Your task to perform on an android device: When is my next appointment? Image 0: 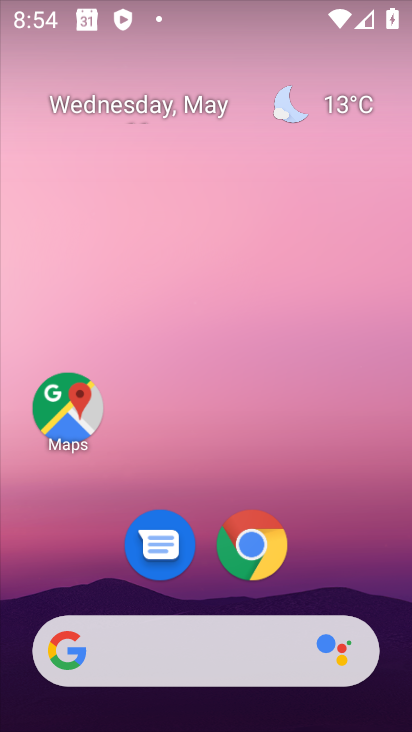
Step 0: drag from (313, 541) to (246, 46)
Your task to perform on an android device: When is my next appointment? Image 1: 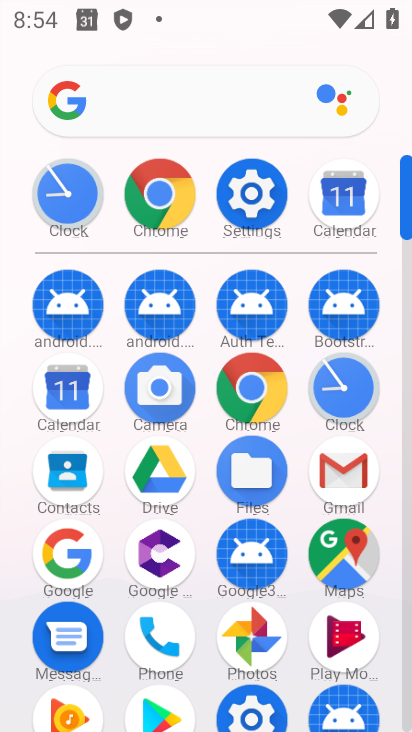
Step 1: drag from (9, 556) to (25, 208)
Your task to perform on an android device: When is my next appointment? Image 2: 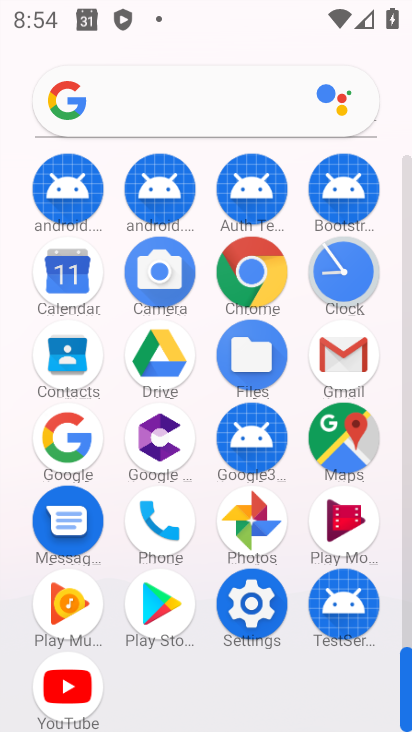
Step 2: drag from (15, 528) to (14, 331)
Your task to perform on an android device: When is my next appointment? Image 3: 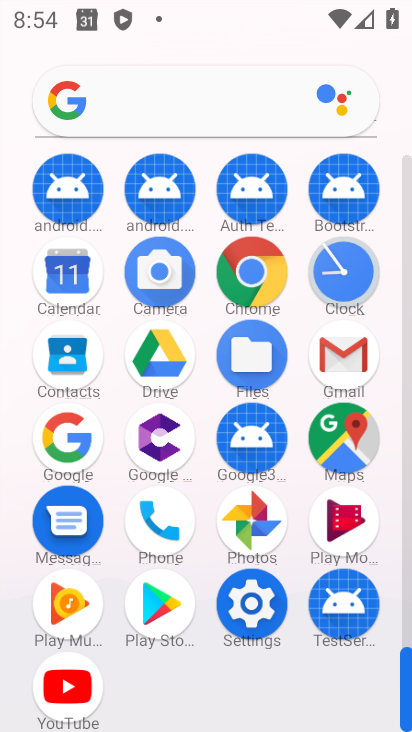
Step 3: click (68, 272)
Your task to perform on an android device: When is my next appointment? Image 4: 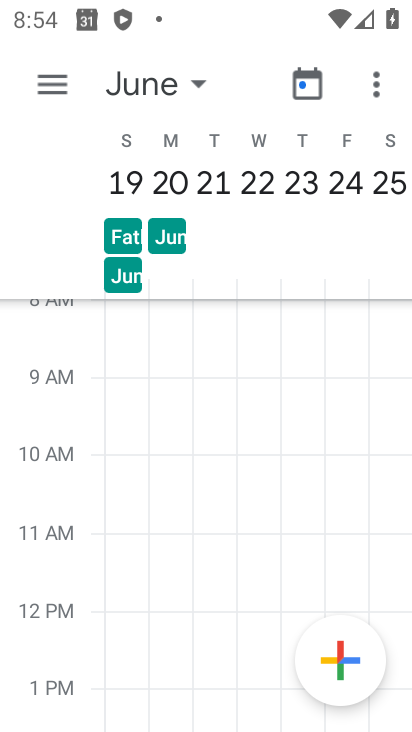
Step 4: click (55, 72)
Your task to perform on an android device: When is my next appointment? Image 5: 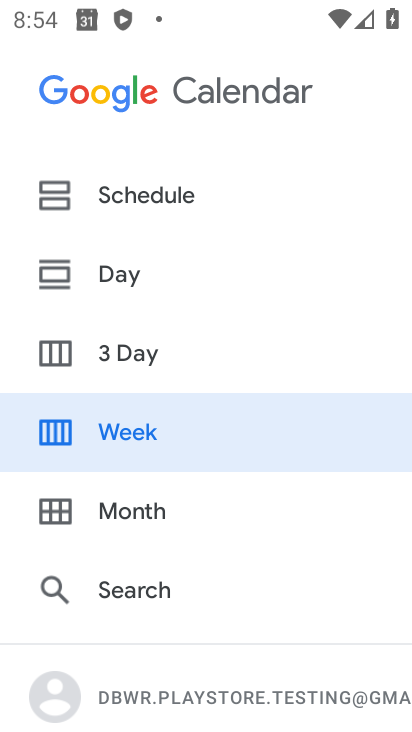
Step 5: drag from (172, 561) to (204, 150)
Your task to perform on an android device: When is my next appointment? Image 6: 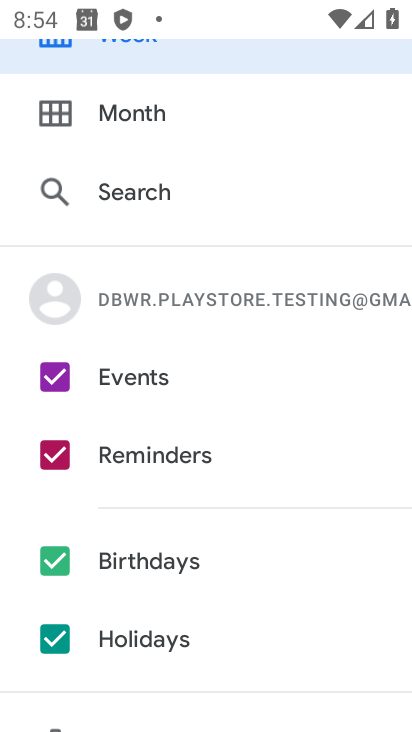
Step 6: click (53, 630)
Your task to perform on an android device: When is my next appointment? Image 7: 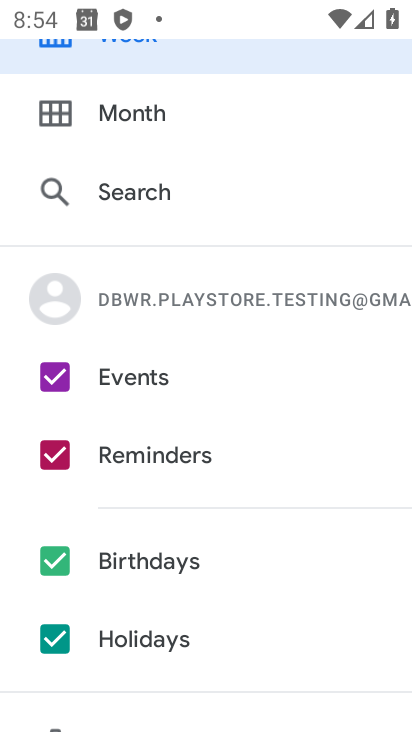
Step 7: click (57, 560)
Your task to perform on an android device: When is my next appointment? Image 8: 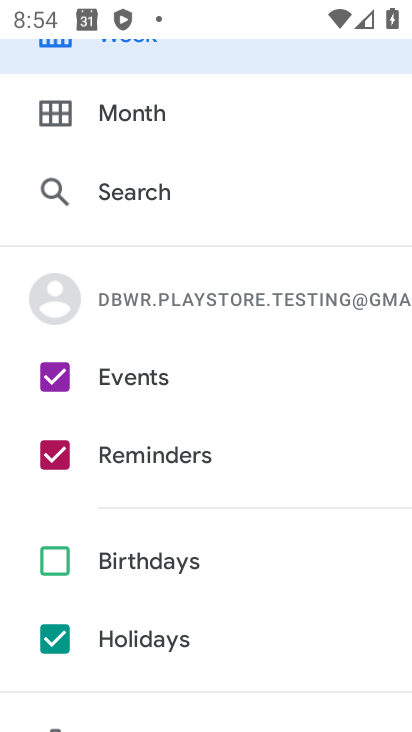
Step 8: click (56, 644)
Your task to perform on an android device: When is my next appointment? Image 9: 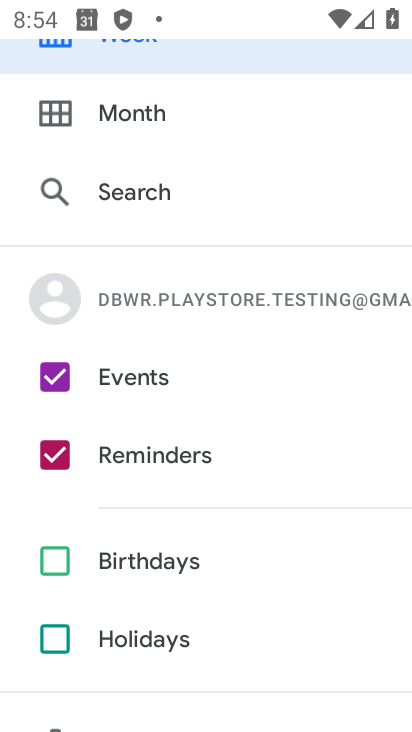
Step 9: drag from (221, 191) to (252, 637)
Your task to perform on an android device: When is my next appointment? Image 10: 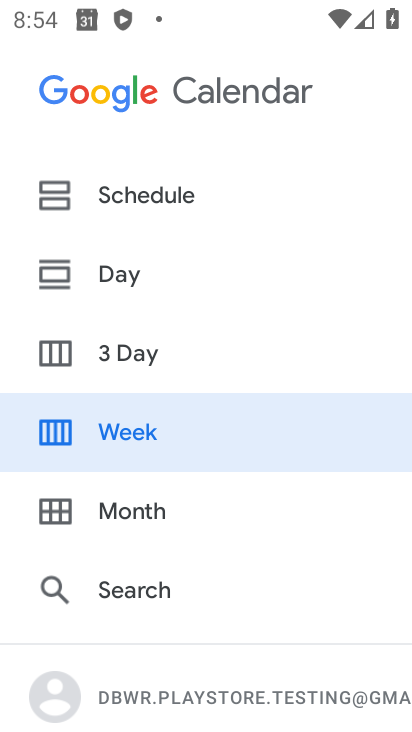
Step 10: drag from (191, 136) to (234, 410)
Your task to perform on an android device: When is my next appointment? Image 11: 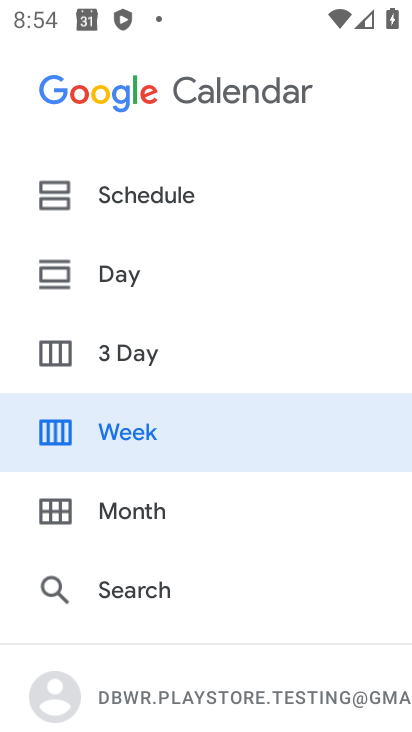
Step 11: click (189, 190)
Your task to perform on an android device: When is my next appointment? Image 12: 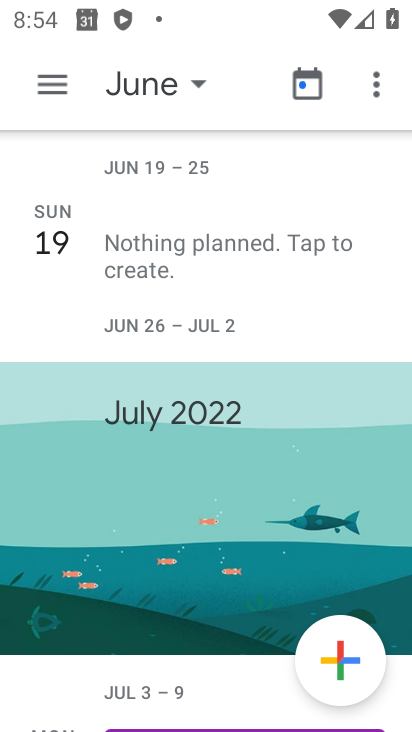
Step 12: click (55, 73)
Your task to perform on an android device: When is my next appointment? Image 13: 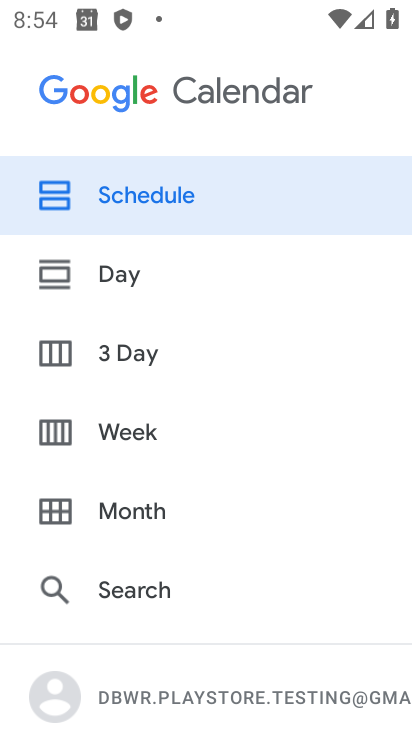
Step 13: click (116, 177)
Your task to perform on an android device: When is my next appointment? Image 14: 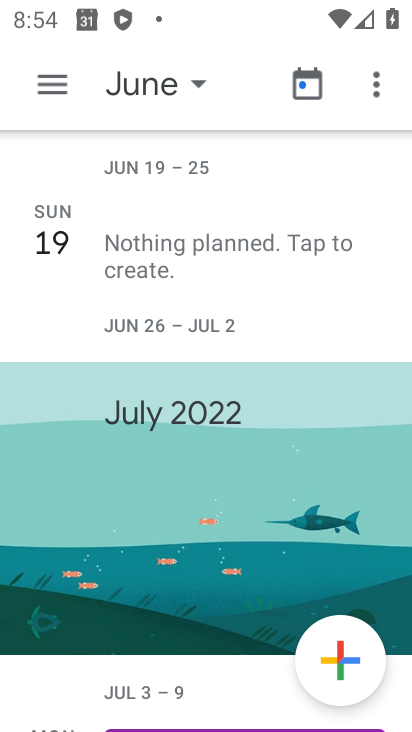
Step 14: task complete